Your task to perform on an android device: Find coffee shops on Maps Image 0: 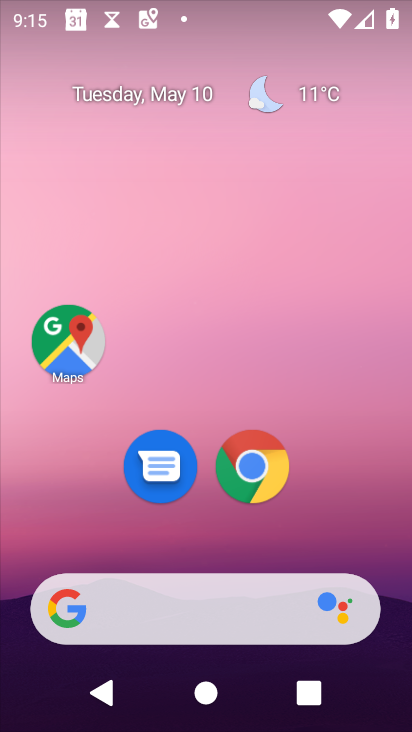
Step 0: drag from (241, 518) to (240, 5)
Your task to perform on an android device: Find coffee shops on Maps Image 1: 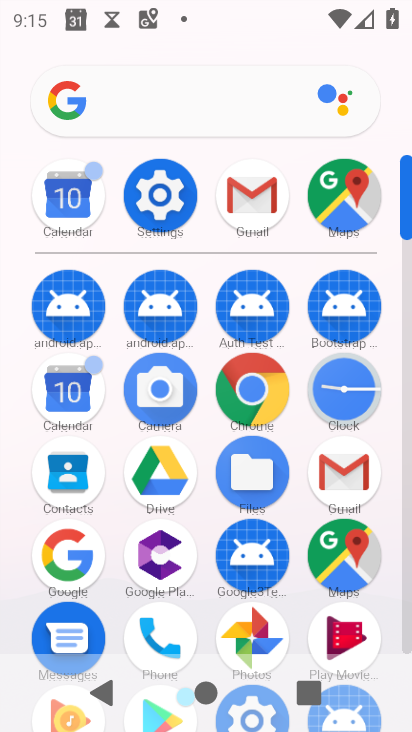
Step 1: click (341, 550)
Your task to perform on an android device: Find coffee shops on Maps Image 2: 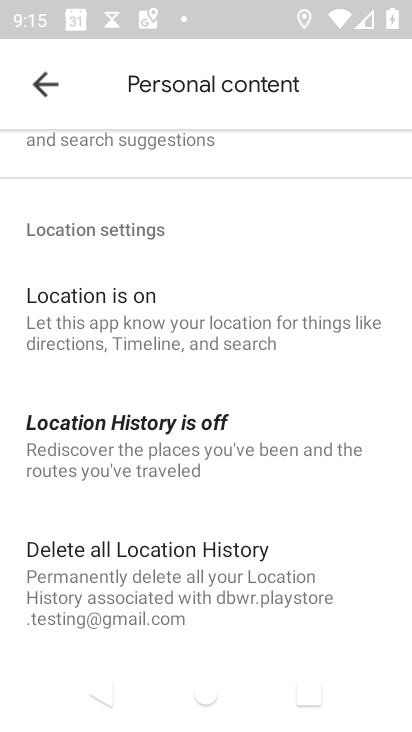
Step 2: click (46, 79)
Your task to perform on an android device: Find coffee shops on Maps Image 3: 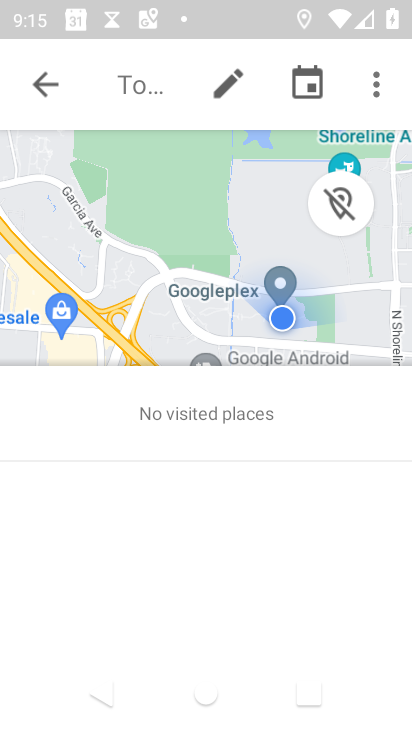
Step 3: click (40, 95)
Your task to perform on an android device: Find coffee shops on Maps Image 4: 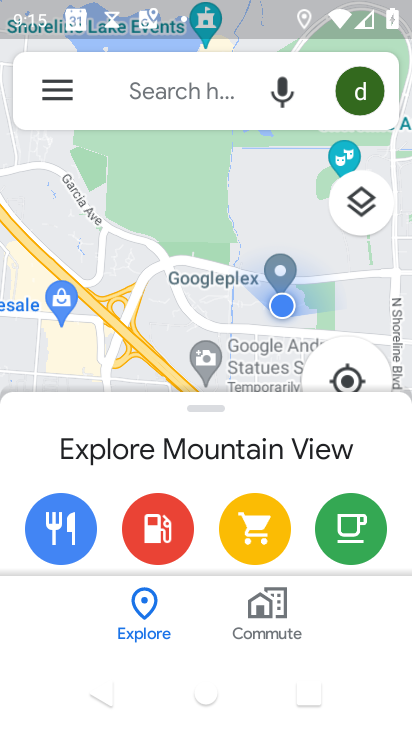
Step 4: click (140, 87)
Your task to perform on an android device: Find coffee shops on Maps Image 5: 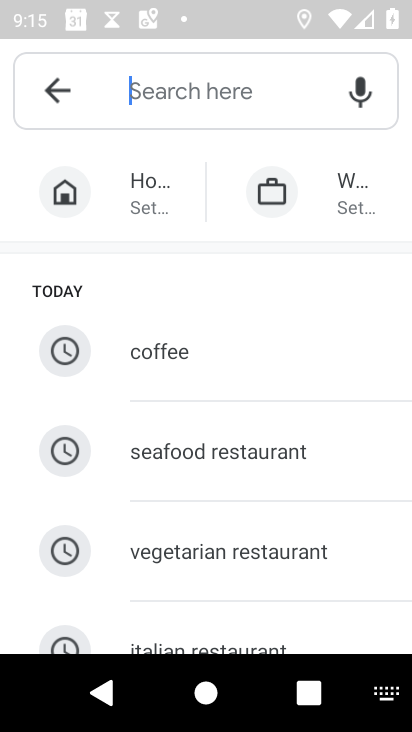
Step 5: type "coffee shops"
Your task to perform on an android device: Find coffee shops on Maps Image 6: 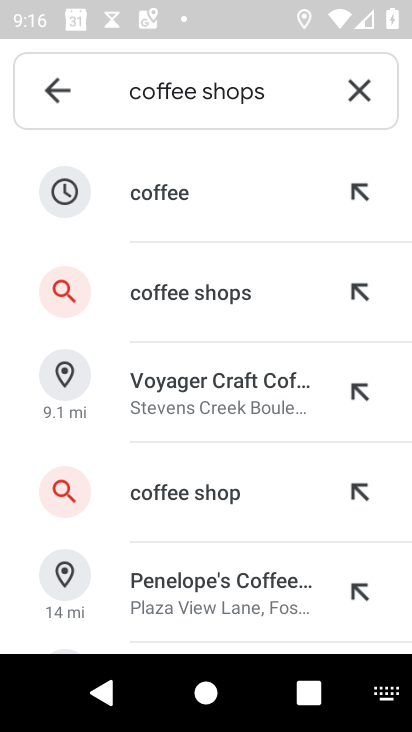
Step 6: click (222, 303)
Your task to perform on an android device: Find coffee shops on Maps Image 7: 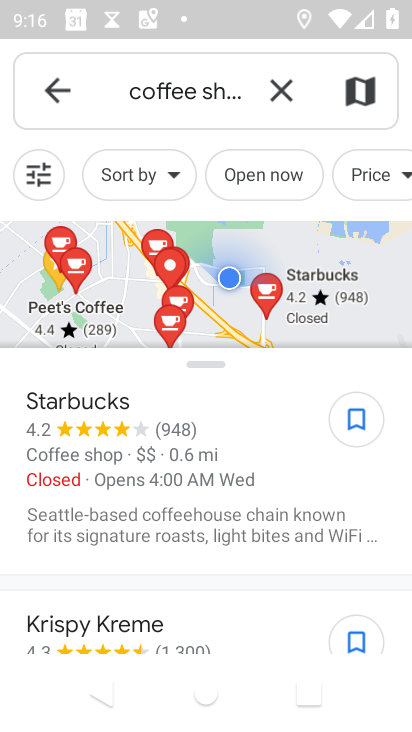
Step 7: task complete